Your task to perform on an android device: turn off airplane mode Image 0: 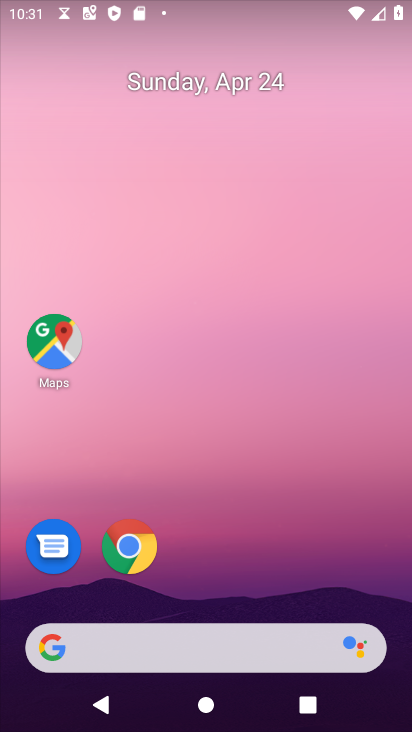
Step 0: drag from (370, 596) to (359, 74)
Your task to perform on an android device: turn off airplane mode Image 1: 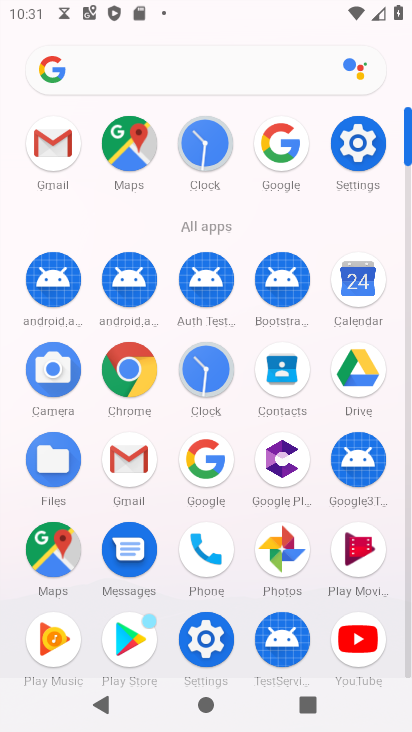
Step 1: click (355, 147)
Your task to perform on an android device: turn off airplane mode Image 2: 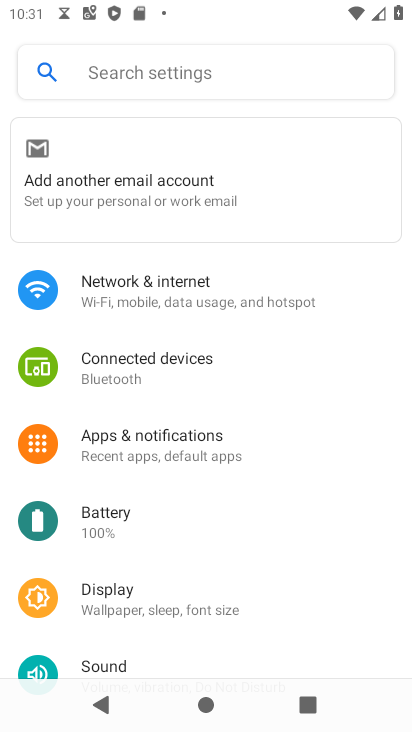
Step 2: click (131, 304)
Your task to perform on an android device: turn off airplane mode Image 3: 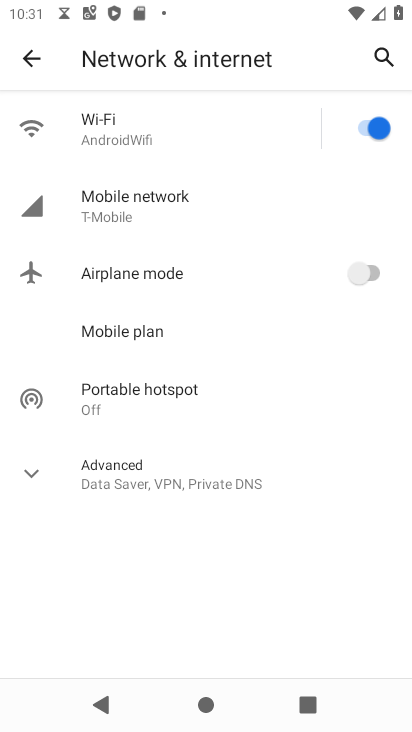
Step 3: task complete